Your task to perform on an android device: Check the news Image 0: 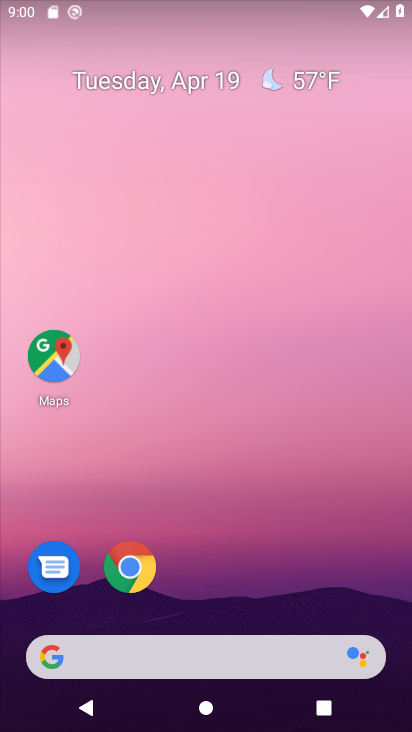
Step 0: click (262, 659)
Your task to perform on an android device: Check the news Image 1: 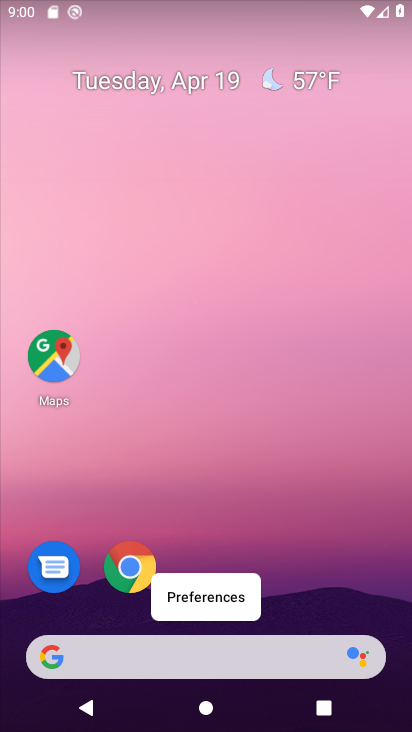
Step 1: type "news"
Your task to perform on an android device: Check the news Image 2: 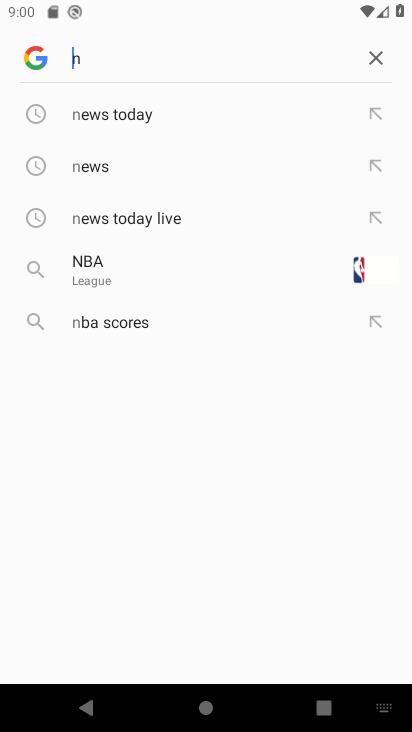
Step 2: click (157, 181)
Your task to perform on an android device: Check the news Image 3: 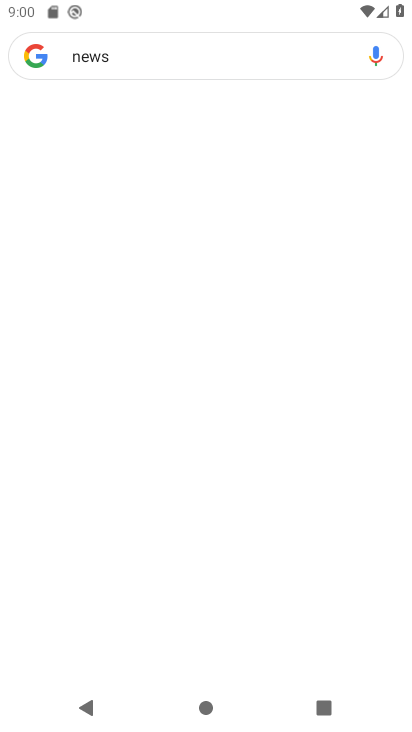
Step 3: click (87, 168)
Your task to perform on an android device: Check the news Image 4: 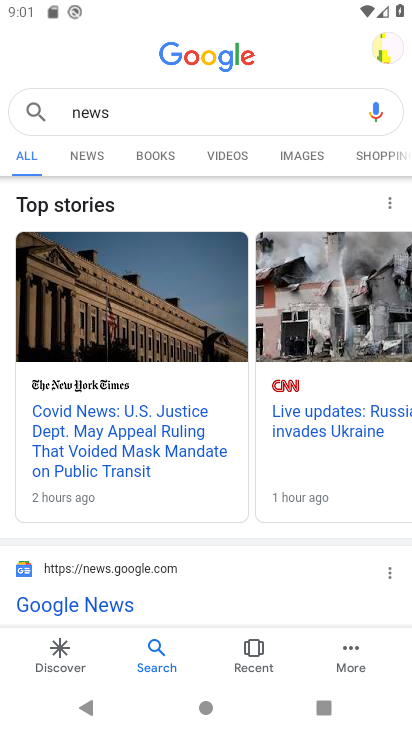
Step 4: task complete